Your task to perform on an android device: Open Wikipedia Image 0: 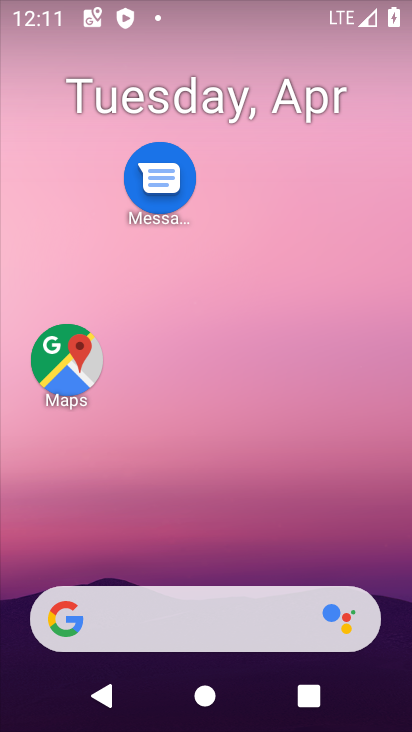
Step 0: drag from (208, 722) to (207, 146)
Your task to perform on an android device: Open Wikipedia Image 1: 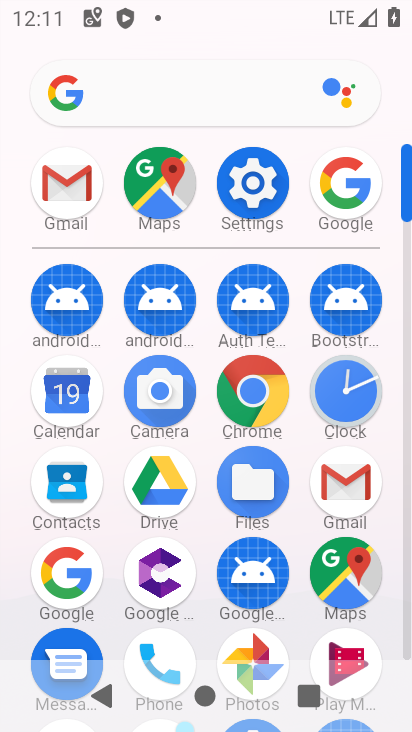
Step 1: click (260, 393)
Your task to perform on an android device: Open Wikipedia Image 2: 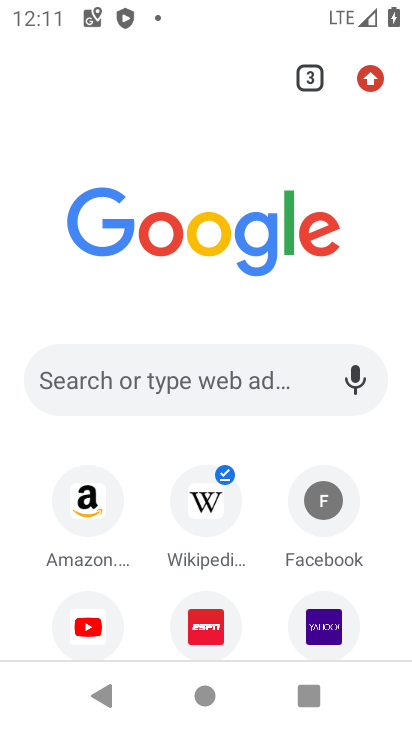
Step 2: click (208, 502)
Your task to perform on an android device: Open Wikipedia Image 3: 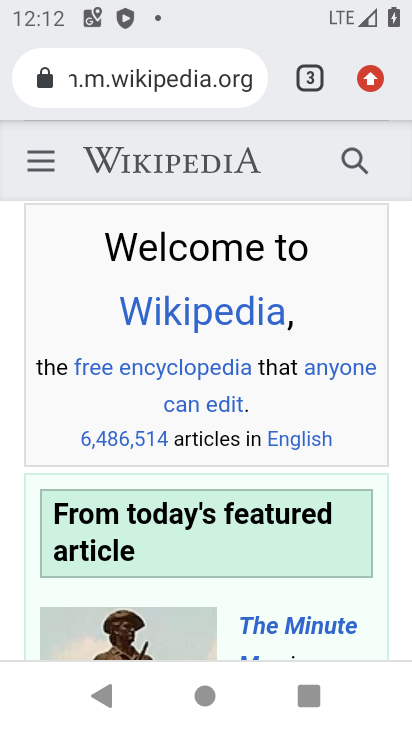
Step 3: task complete